Your task to perform on an android device: Do I have any events this weekend? Image 0: 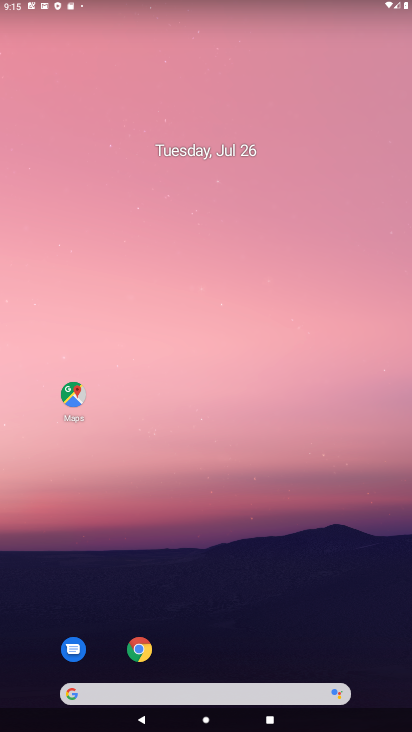
Step 0: drag from (196, 645) to (374, 25)
Your task to perform on an android device: Do I have any events this weekend? Image 1: 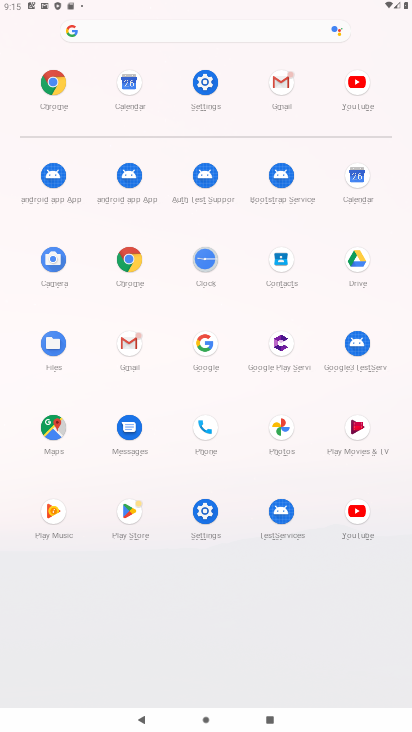
Step 1: click (352, 182)
Your task to perform on an android device: Do I have any events this weekend? Image 2: 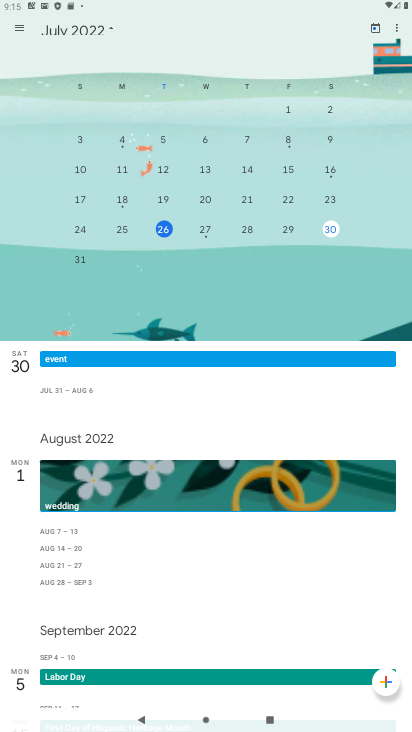
Step 2: click (326, 227)
Your task to perform on an android device: Do I have any events this weekend? Image 3: 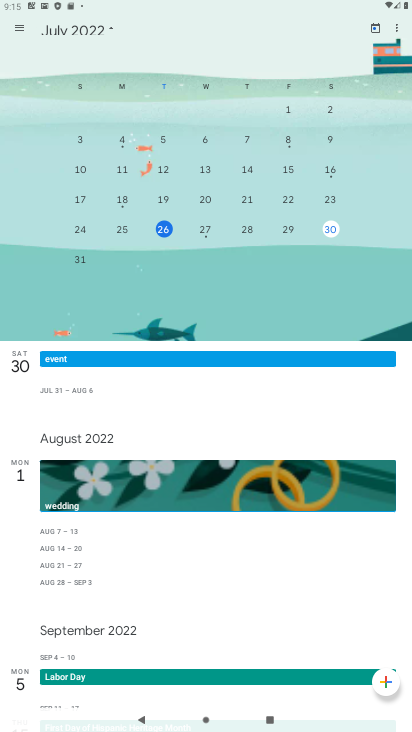
Step 3: task complete